Your task to perform on an android device: turn off javascript in the chrome app Image 0: 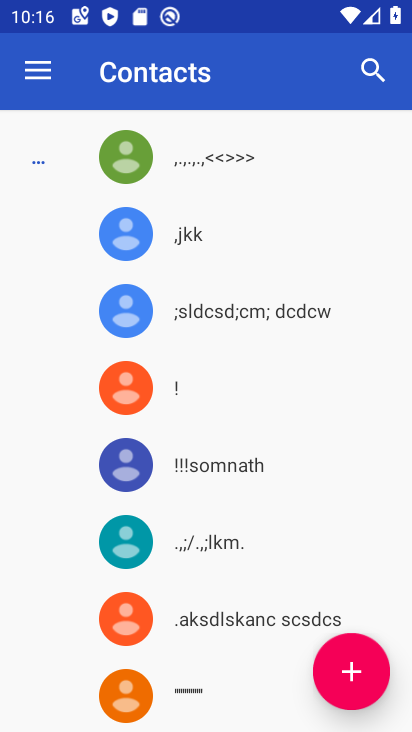
Step 0: press home button
Your task to perform on an android device: turn off javascript in the chrome app Image 1: 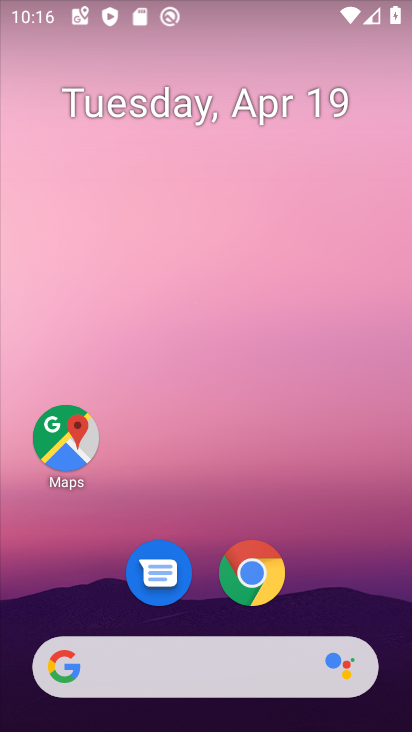
Step 1: click (265, 561)
Your task to perform on an android device: turn off javascript in the chrome app Image 2: 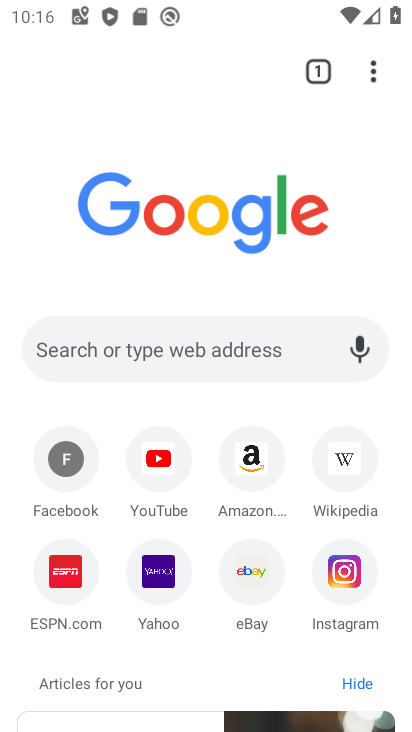
Step 2: drag from (372, 71) to (147, 603)
Your task to perform on an android device: turn off javascript in the chrome app Image 3: 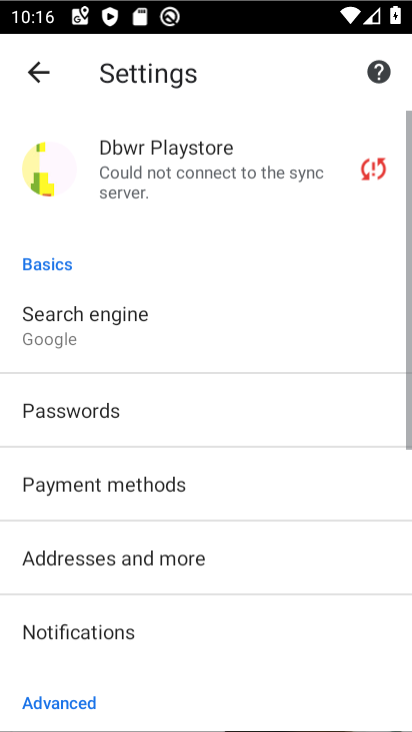
Step 3: click (147, 602)
Your task to perform on an android device: turn off javascript in the chrome app Image 4: 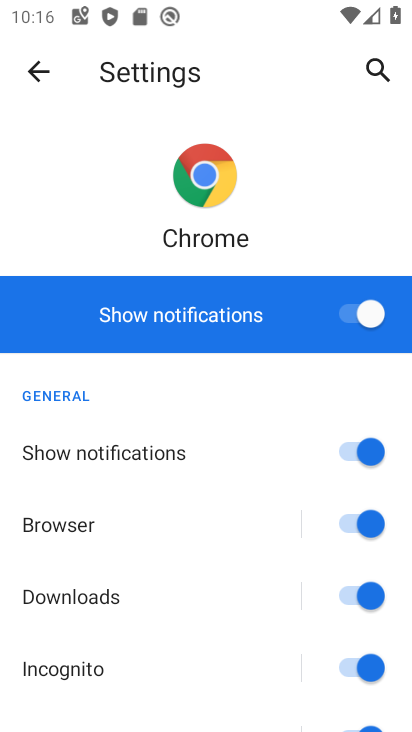
Step 4: click (34, 71)
Your task to perform on an android device: turn off javascript in the chrome app Image 5: 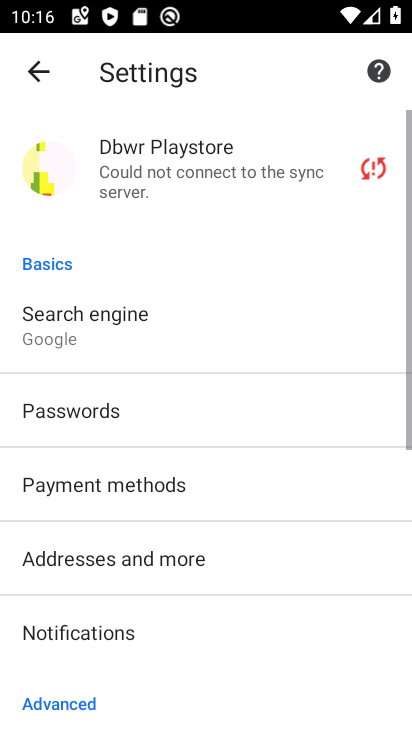
Step 5: drag from (144, 683) to (161, 209)
Your task to perform on an android device: turn off javascript in the chrome app Image 6: 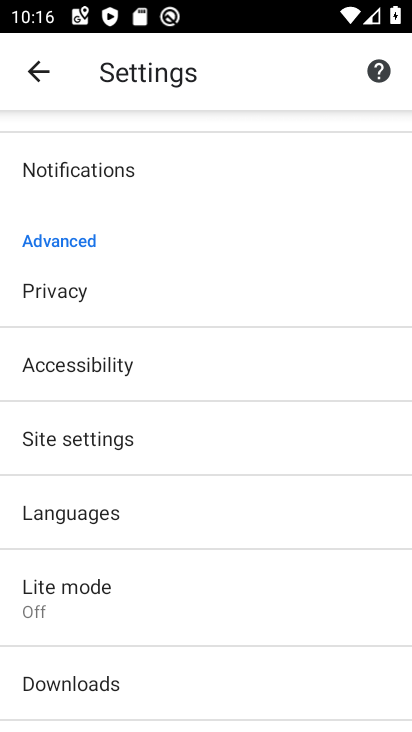
Step 6: click (75, 439)
Your task to perform on an android device: turn off javascript in the chrome app Image 7: 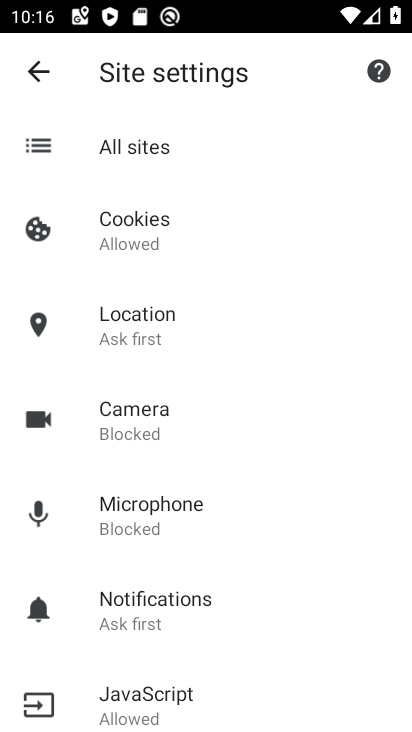
Step 7: click (163, 708)
Your task to perform on an android device: turn off javascript in the chrome app Image 8: 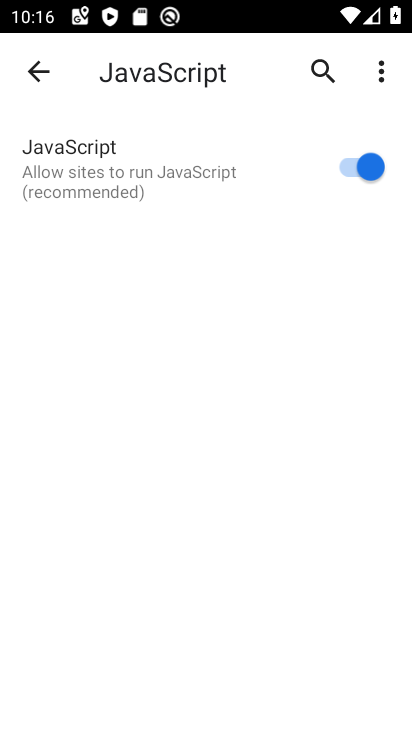
Step 8: click (358, 174)
Your task to perform on an android device: turn off javascript in the chrome app Image 9: 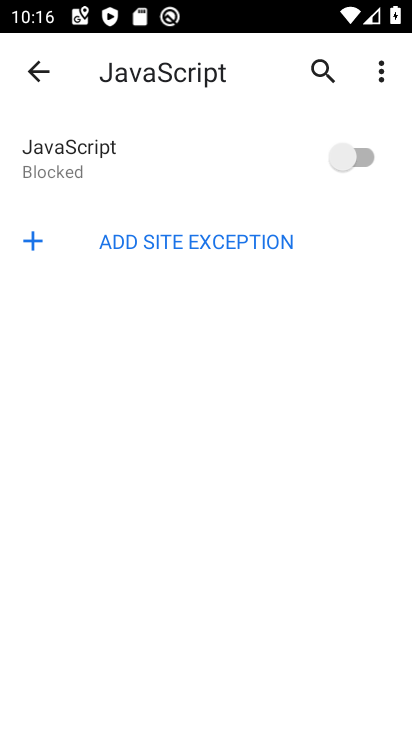
Step 9: task complete